Your task to perform on an android device: turn on translation in the chrome app Image 0: 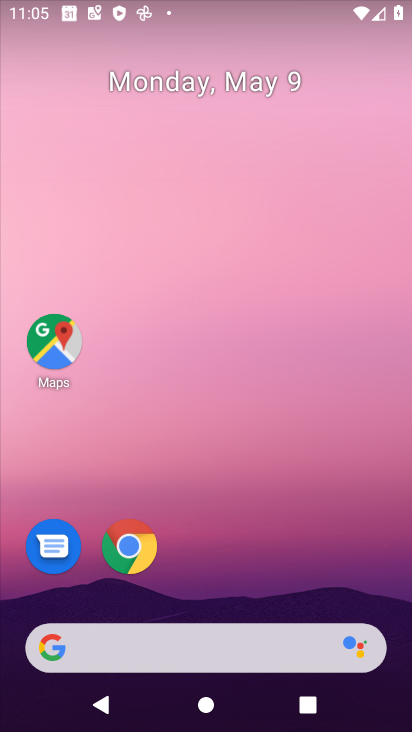
Step 0: click (139, 556)
Your task to perform on an android device: turn on translation in the chrome app Image 1: 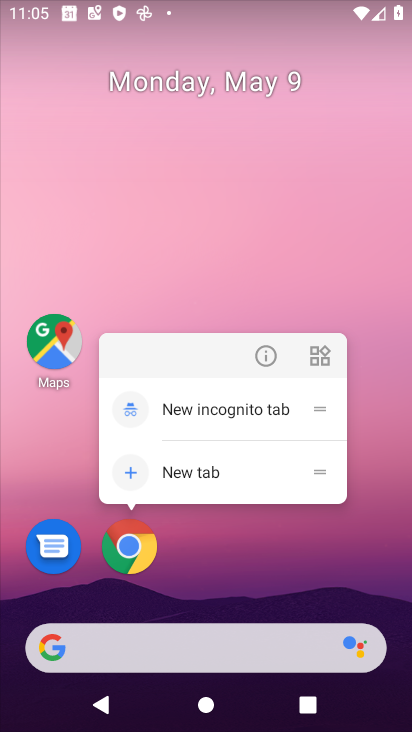
Step 1: click (128, 560)
Your task to perform on an android device: turn on translation in the chrome app Image 2: 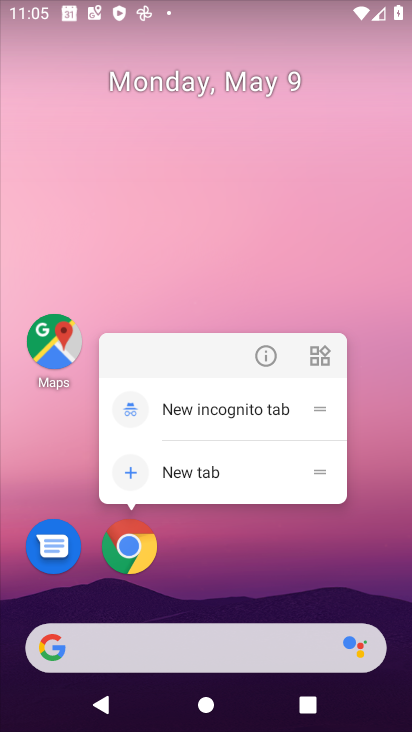
Step 2: click (129, 560)
Your task to perform on an android device: turn on translation in the chrome app Image 3: 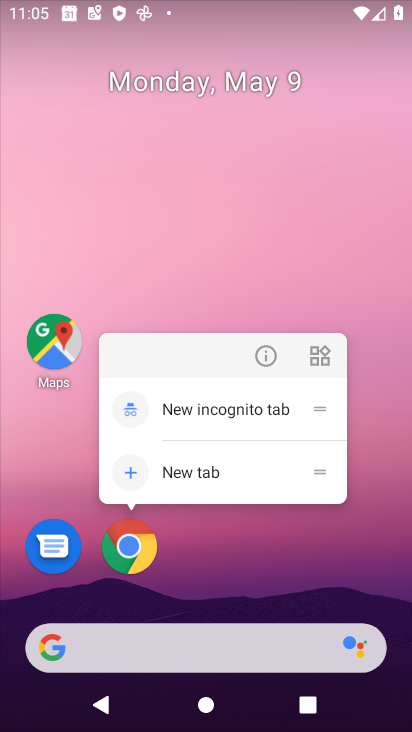
Step 3: click (129, 560)
Your task to perform on an android device: turn on translation in the chrome app Image 4: 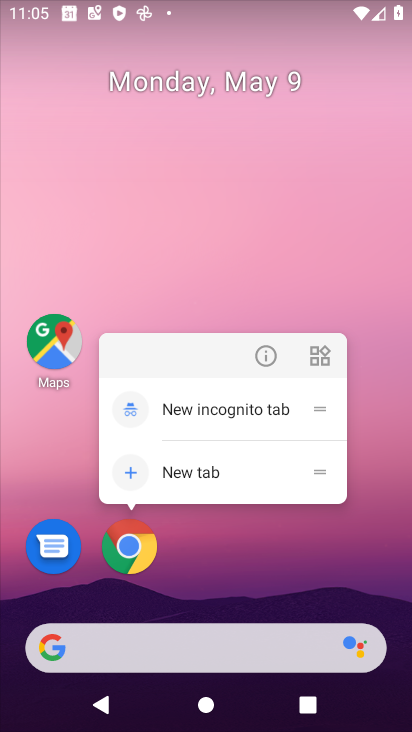
Step 4: click (129, 560)
Your task to perform on an android device: turn on translation in the chrome app Image 5: 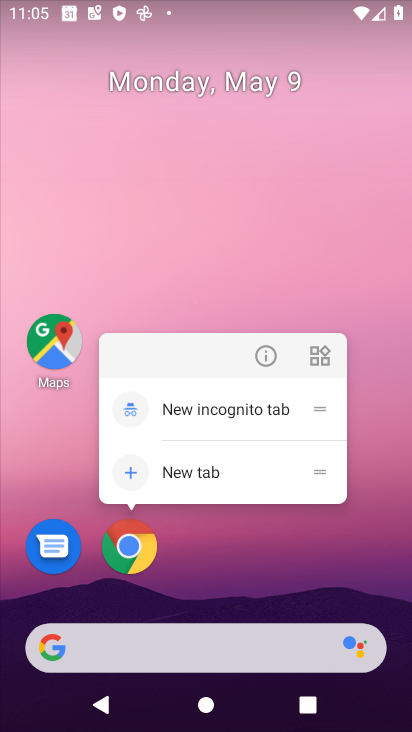
Step 5: click (129, 560)
Your task to perform on an android device: turn on translation in the chrome app Image 6: 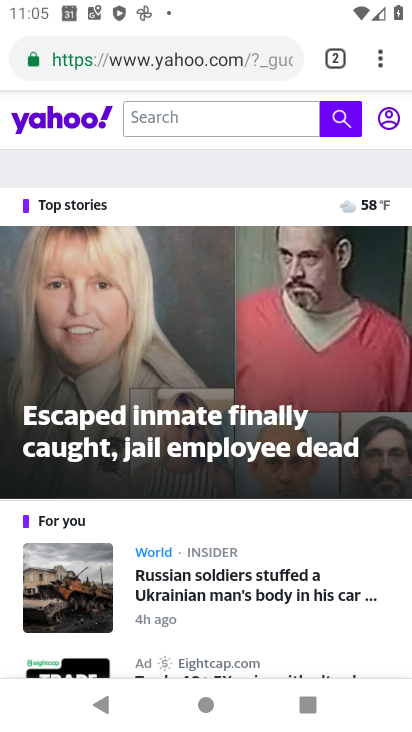
Step 6: drag from (381, 62) to (281, 576)
Your task to perform on an android device: turn on translation in the chrome app Image 7: 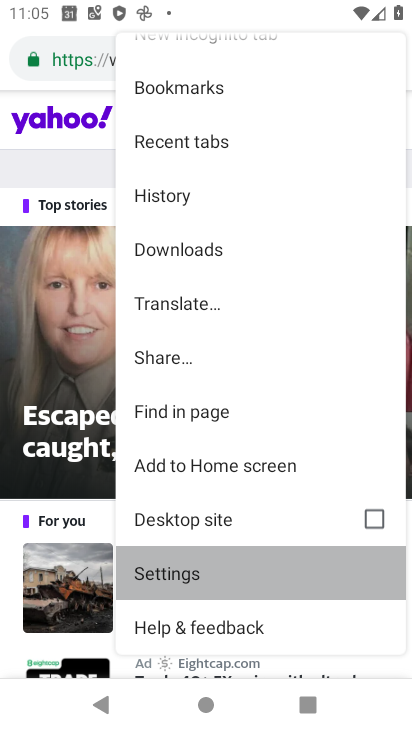
Step 7: click (281, 576)
Your task to perform on an android device: turn on translation in the chrome app Image 8: 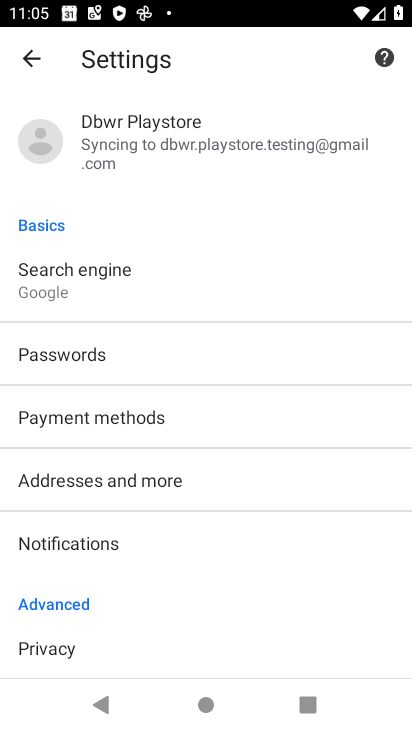
Step 8: drag from (172, 616) to (203, 72)
Your task to perform on an android device: turn on translation in the chrome app Image 9: 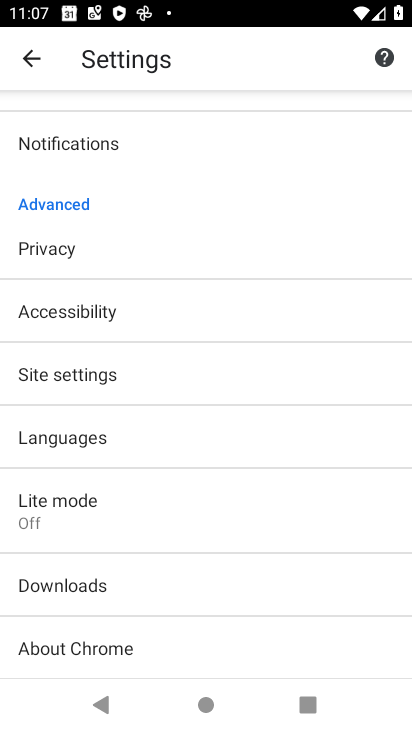
Step 9: click (85, 429)
Your task to perform on an android device: turn on translation in the chrome app Image 10: 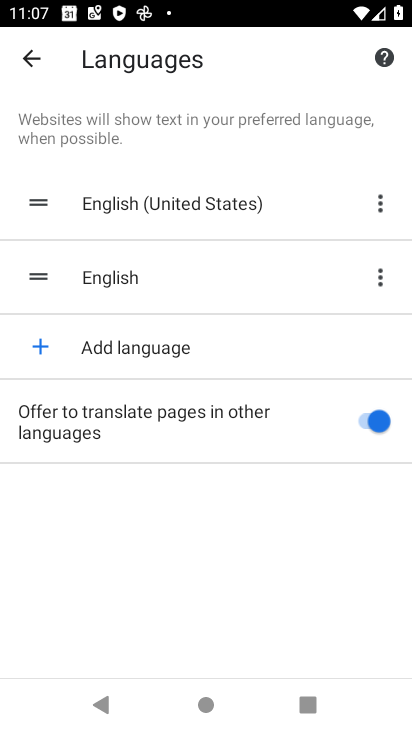
Step 10: task complete